Your task to perform on an android device: Go to ESPN.com Image 0: 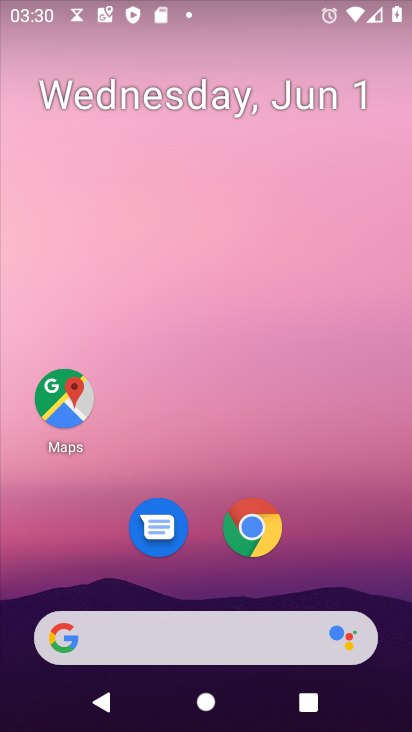
Step 0: click (254, 525)
Your task to perform on an android device: Go to ESPN.com Image 1: 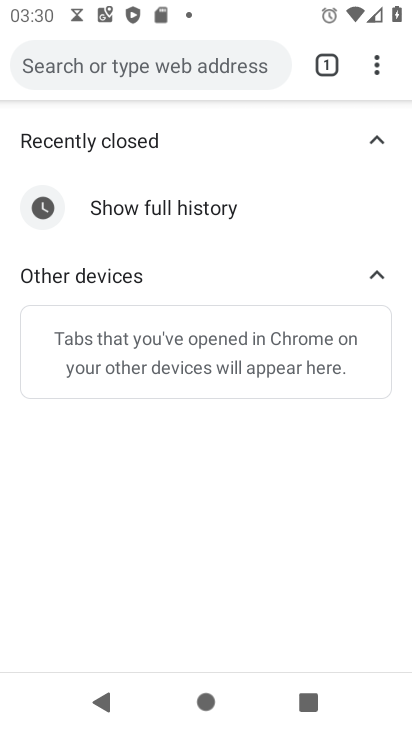
Step 1: click (195, 69)
Your task to perform on an android device: Go to ESPN.com Image 2: 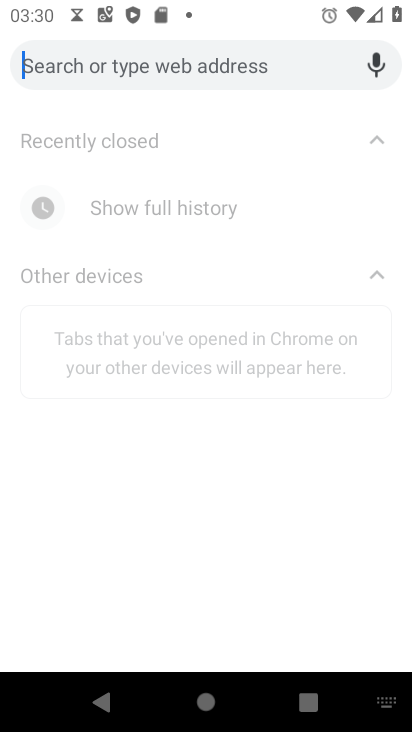
Step 2: type "ESPN.com"
Your task to perform on an android device: Go to ESPN.com Image 3: 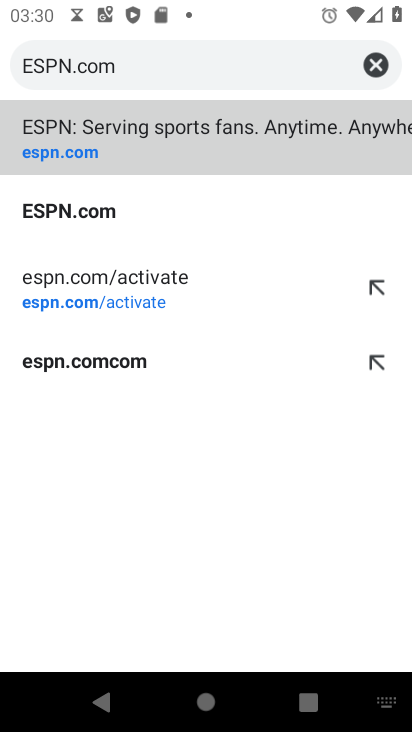
Step 3: click (94, 213)
Your task to perform on an android device: Go to ESPN.com Image 4: 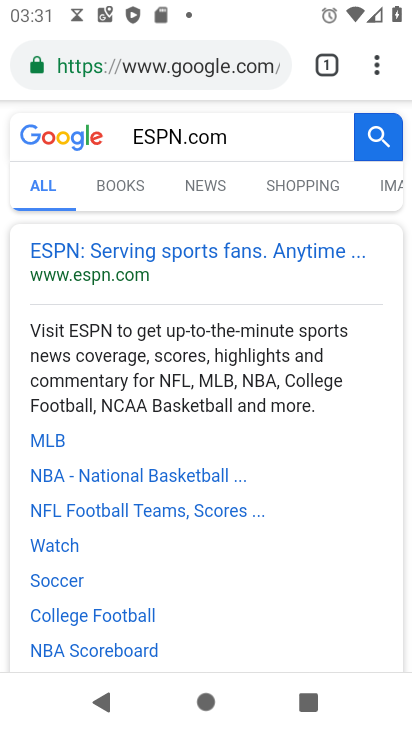
Step 4: click (121, 264)
Your task to perform on an android device: Go to ESPN.com Image 5: 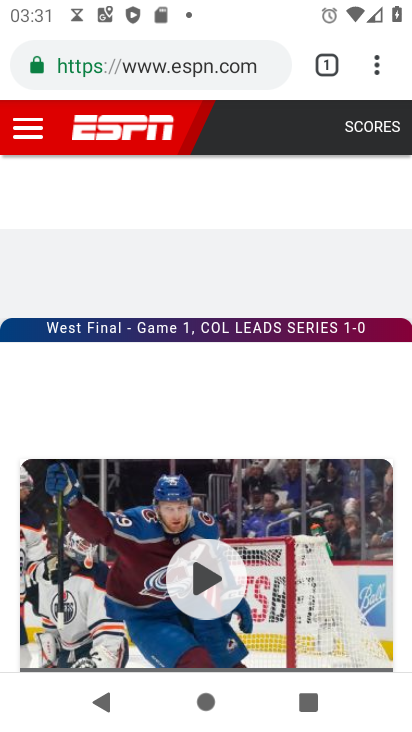
Step 5: task complete